Your task to perform on an android device: see tabs open on other devices in the chrome app Image 0: 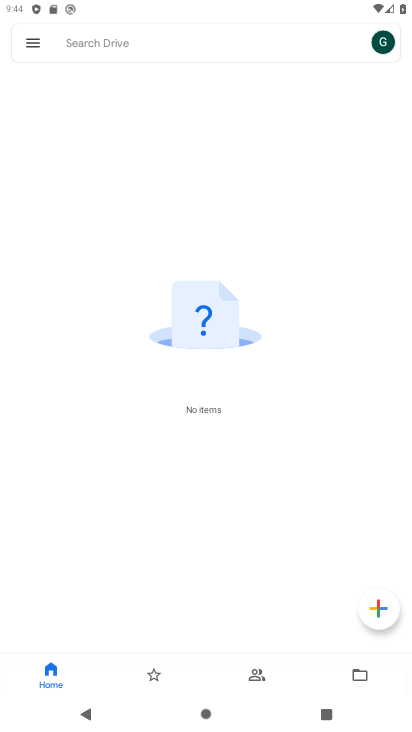
Step 0: press home button
Your task to perform on an android device: see tabs open on other devices in the chrome app Image 1: 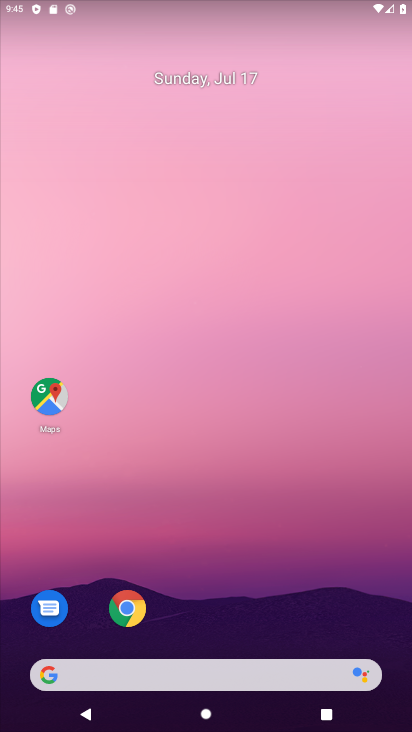
Step 1: click (129, 608)
Your task to perform on an android device: see tabs open on other devices in the chrome app Image 2: 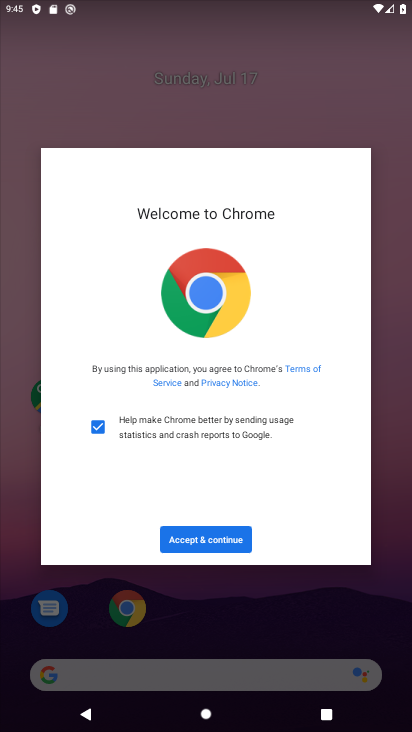
Step 2: click (208, 534)
Your task to perform on an android device: see tabs open on other devices in the chrome app Image 3: 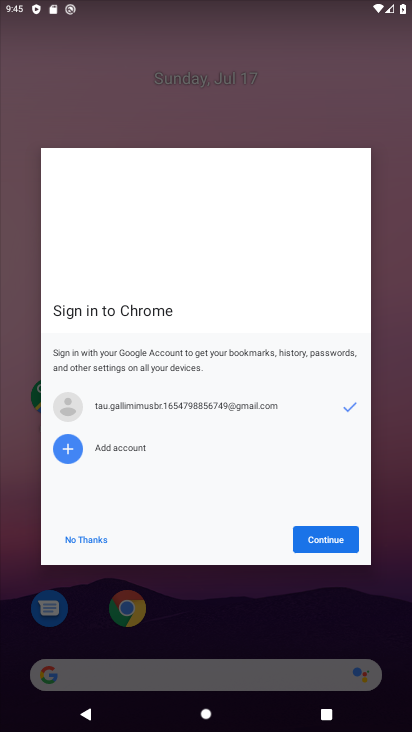
Step 3: click (326, 539)
Your task to perform on an android device: see tabs open on other devices in the chrome app Image 4: 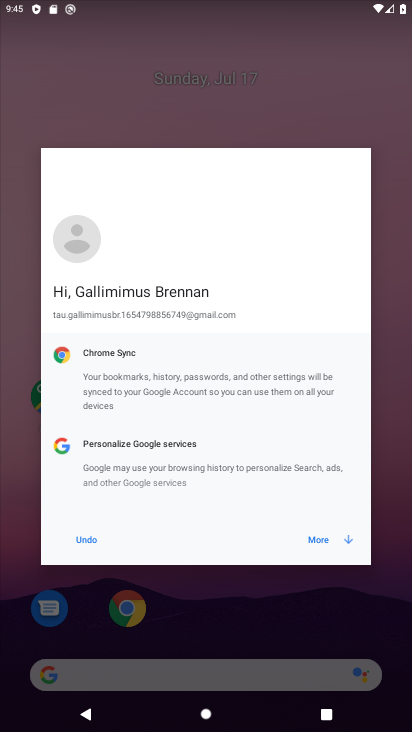
Step 4: click (321, 540)
Your task to perform on an android device: see tabs open on other devices in the chrome app Image 5: 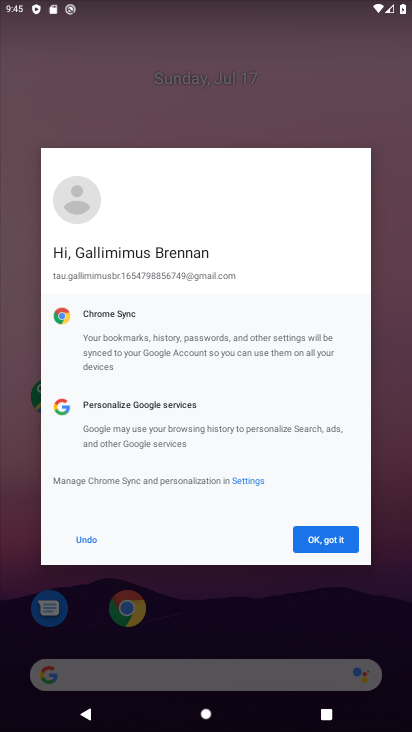
Step 5: click (321, 540)
Your task to perform on an android device: see tabs open on other devices in the chrome app Image 6: 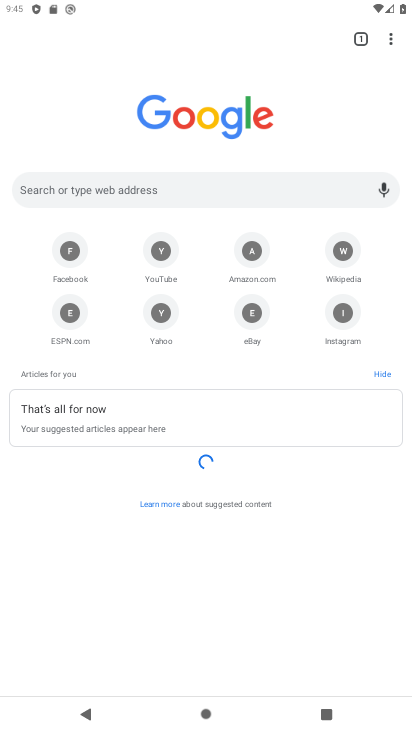
Step 6: click (390, 42)
Your task to perform on an android device: see tabs open on other devices in the chrome app Image 7: 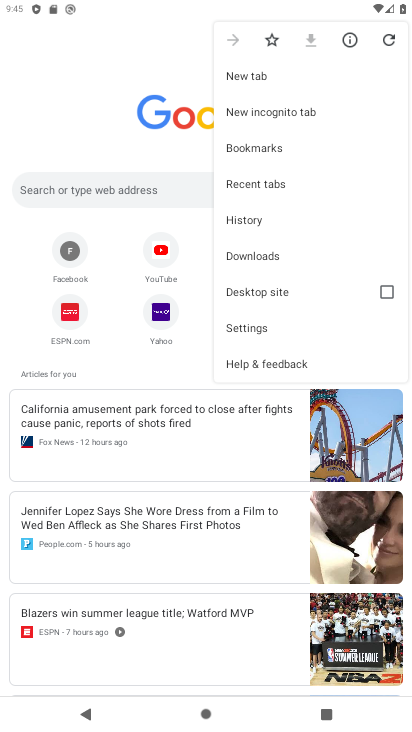
Step 7: click (245, 182)
Your task to perform on an android device: see tabs open on other devices in the chrome app Image 8: 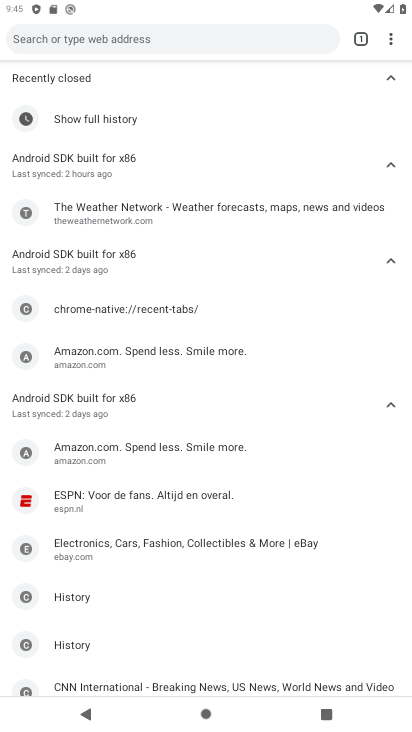
Step 8: task complete